Your task to perform on an android device: turn on sleep mode Image 0: 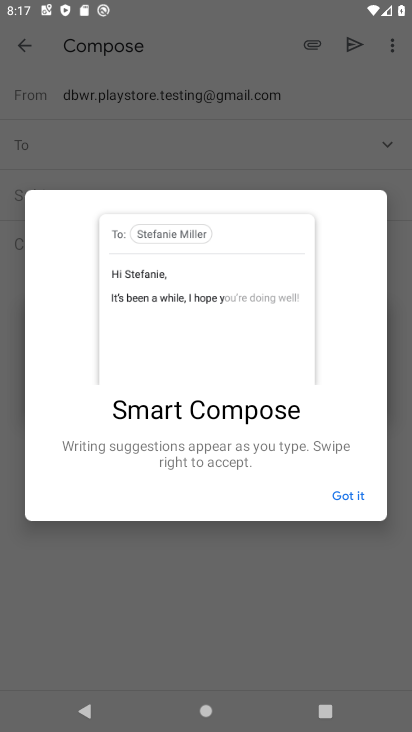
Step 0: press home button
Your task to perform on an android device: turn on sleep mode Image 1: 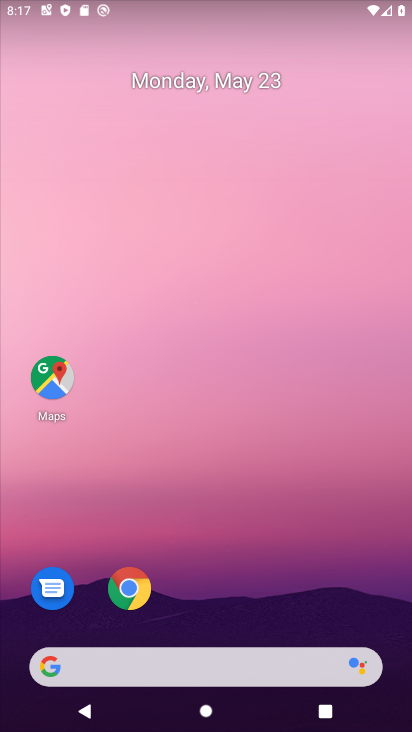
Step 1: drag from (393, 704) to (349, 133)
Your task to perform on an android device: turn on sleep mode Image 2: 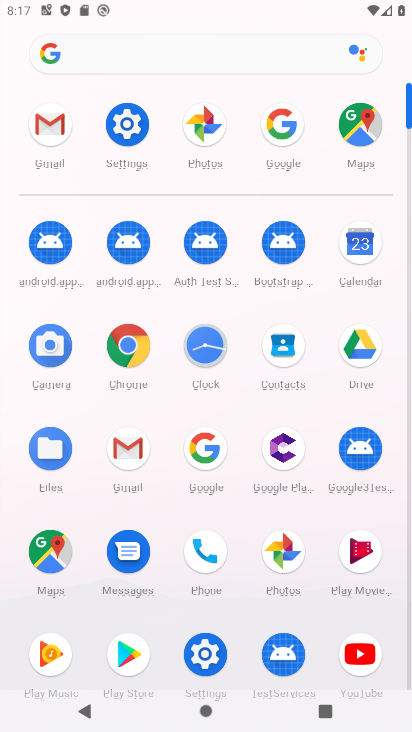
Step 2: click (117, 125)
Your task to perform on an android device: turn on sleep mode Image 3: 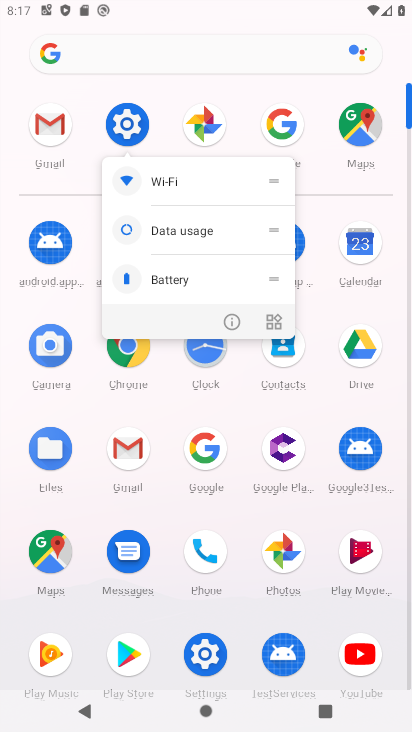
Step 3: click (128, 119)
Your task to perform on an android device: turn on sleep mode Image 4: 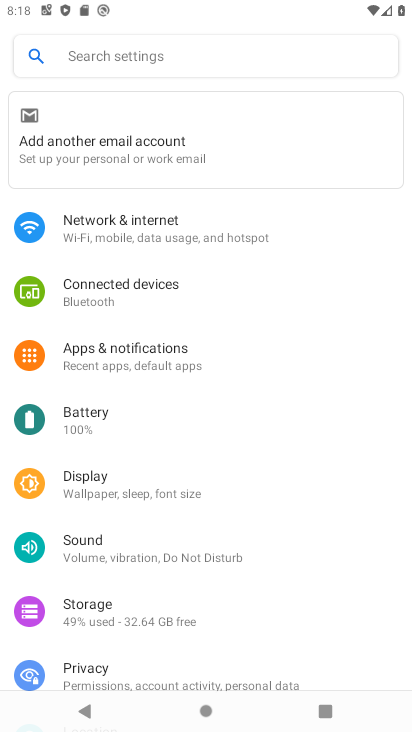
Step 4: click (93, 485)
Your task to perform on an android device: turn on sleep mode Image 5: 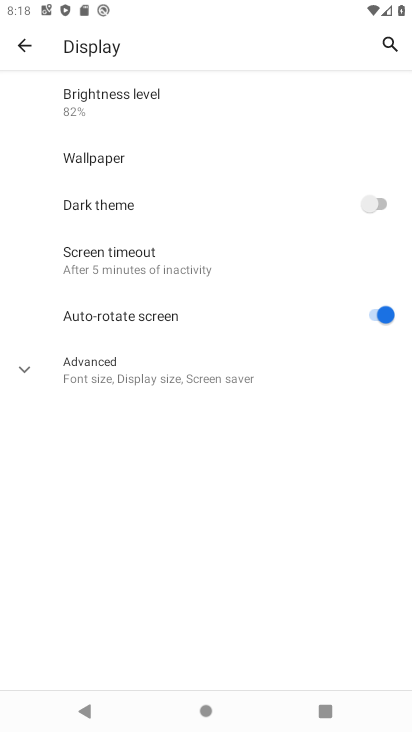
Step 5: drag from (284, 188) to (280, 433)
Your task to perform on an android device: turn on sleep mode Image 6: 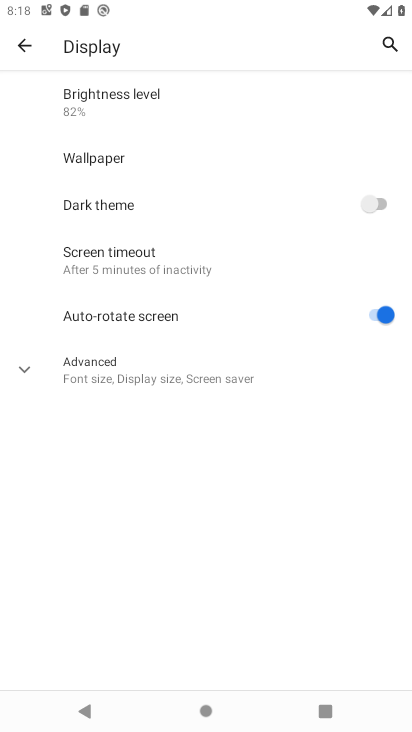
Step 6: click (101, 250)
Your task to perform on an android device: turn on sleep mode Image 7: 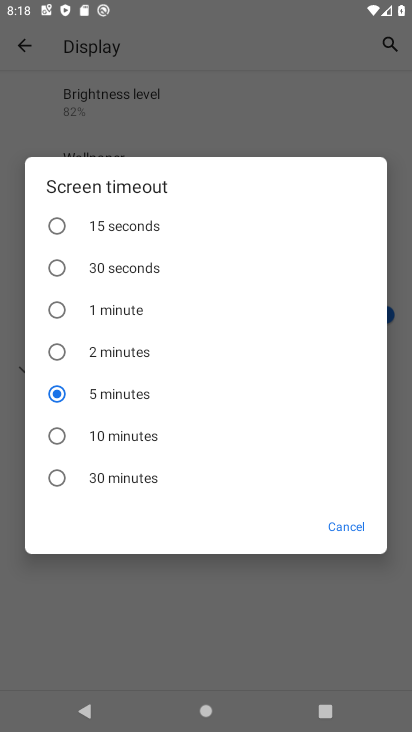
Step 7: click (53, 439)
Your task to perform on an android device: turn on sleep mode Image 8: 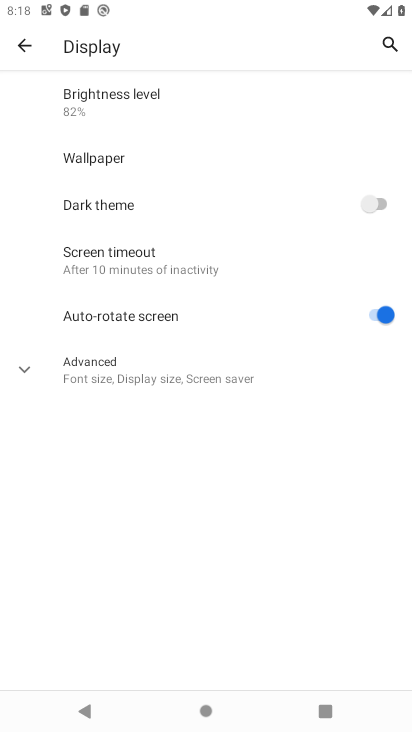
Step 8: click (85, 260)
Your task to perform on an android device: turn on sleep mode Image 9: 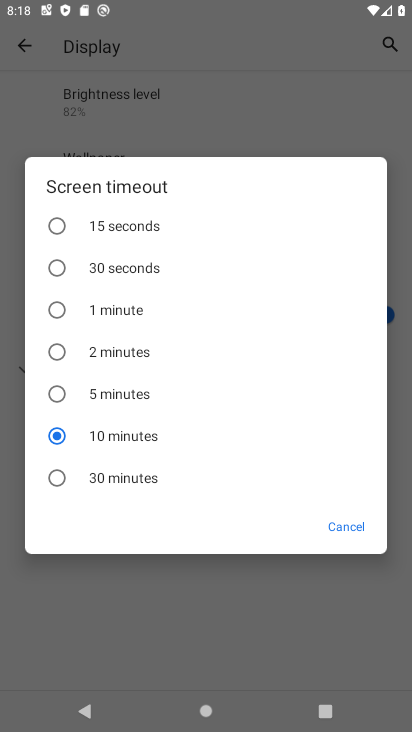
Step 9: task complete